Your task to perform on an android device: create a new album in the google photos Image 0: 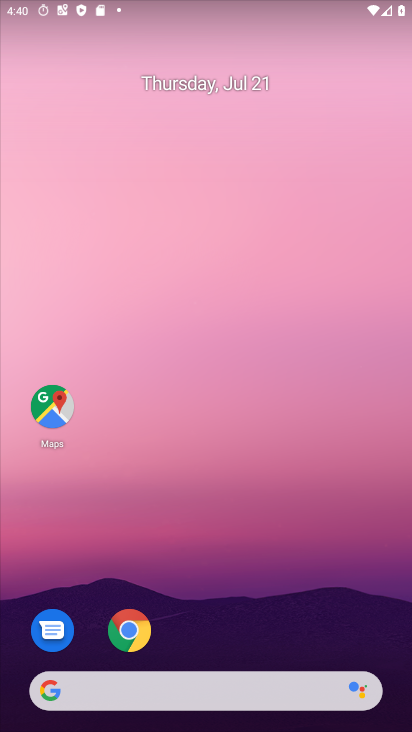
Step 0: drag from (261, 689) to (390, 87)
Your task to perform on an android device: create a new album in the google photos Image 1: 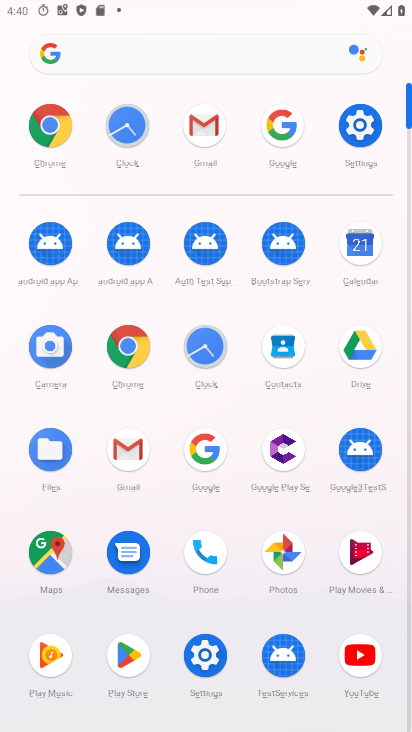
Step 1: click (285, 552)
Your task to perform on an android device: create a new album in the google photos Image 2: 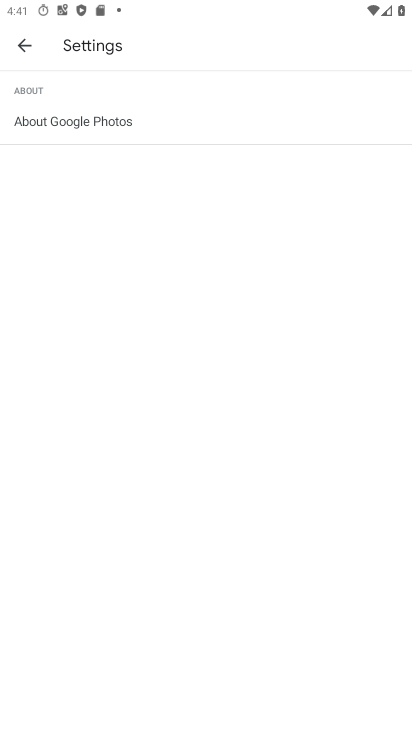
Step 2: press back button
Your task to perform on an android device: create a new album in the google photos Image 3: 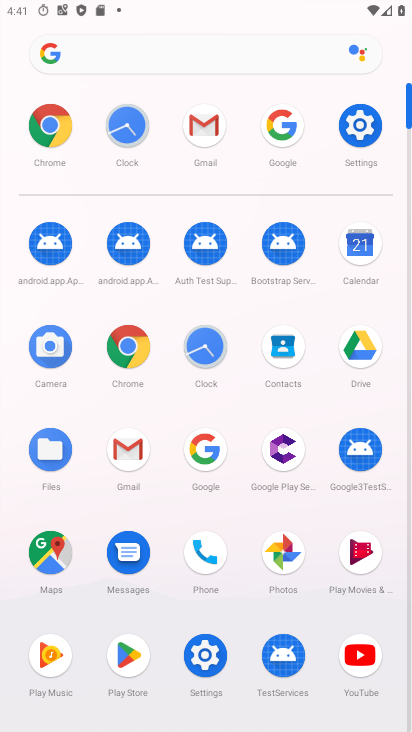
Step 3: click (284, 551)
Your task to perform on an android device: create a new album in the google photos Image 4: 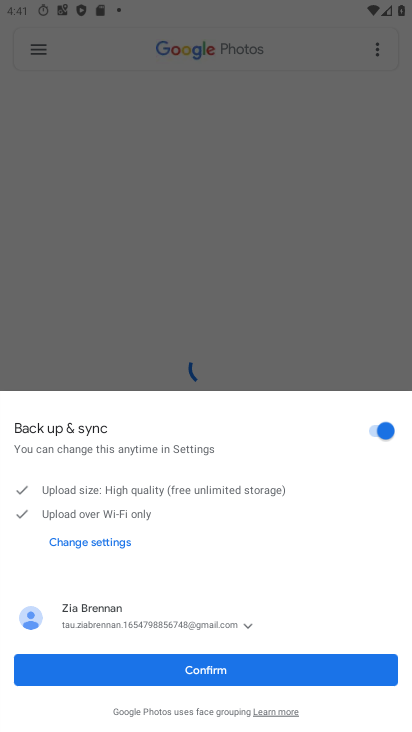
Step 4: click (229, 666)
Your task to perform on an android device: create a new album in the google photos Image 5: 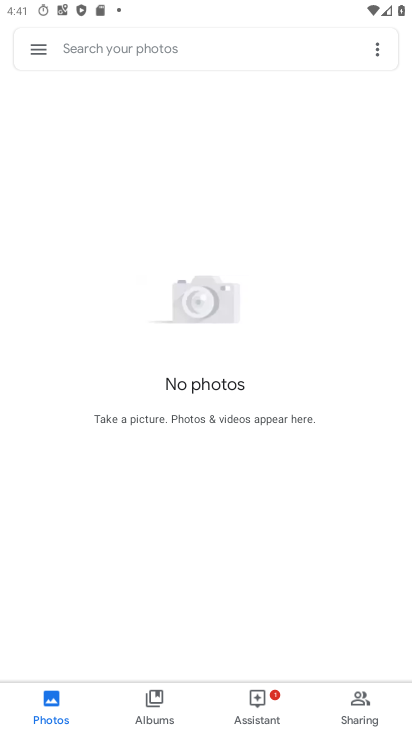
Step 5: click (378, 51)
Your task to perform on an android device: create a new album in the google photos Image 6: 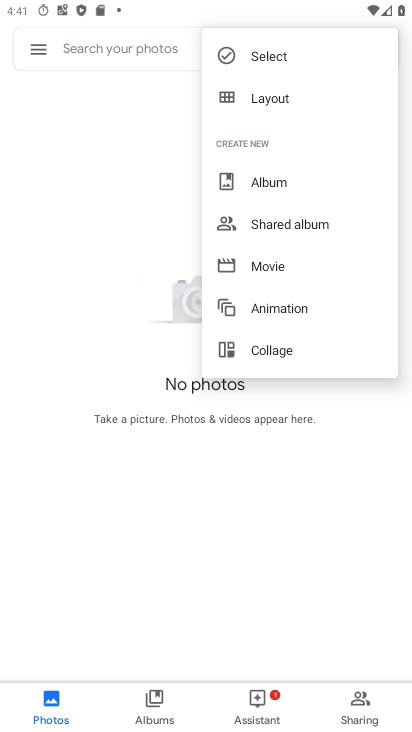
Step 6: click (271, 185)
Your task to perform on an android device: create a new album in the google photos Image 7: 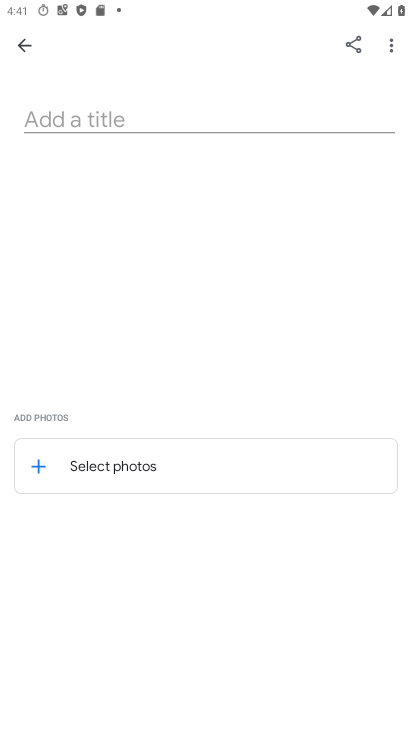
Step 7: click (276, 114)
Your task to perform on an android device: create a new album in the google photos Image 8: 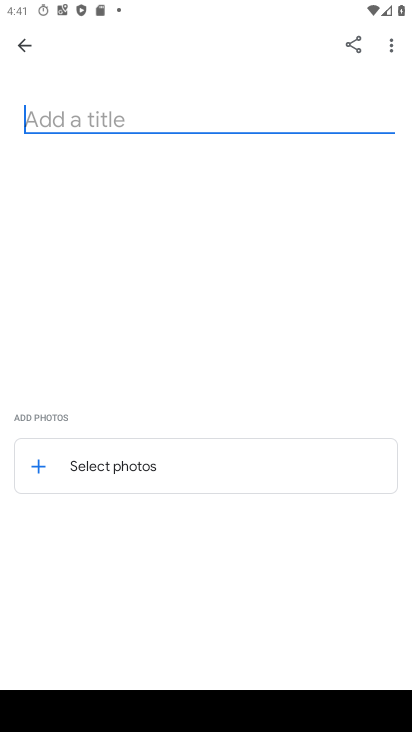
Step 8: type "Sonu"
Your task to perform on an android device: create a new album in the google photos Image 9: 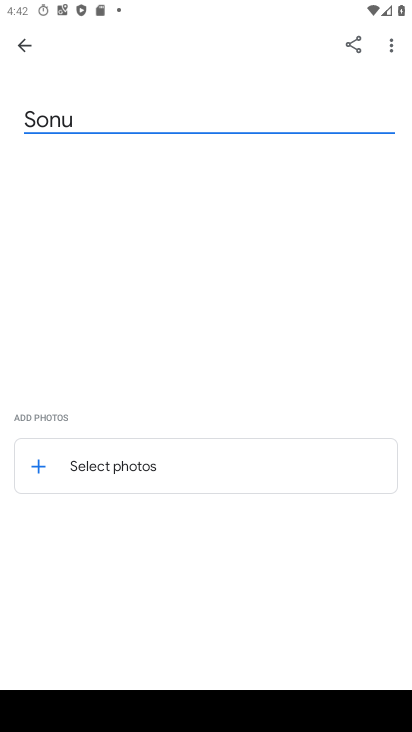
Step 9: click (40, 467)
Your task to perform on an android device: create a new album in the google photos Image 10: 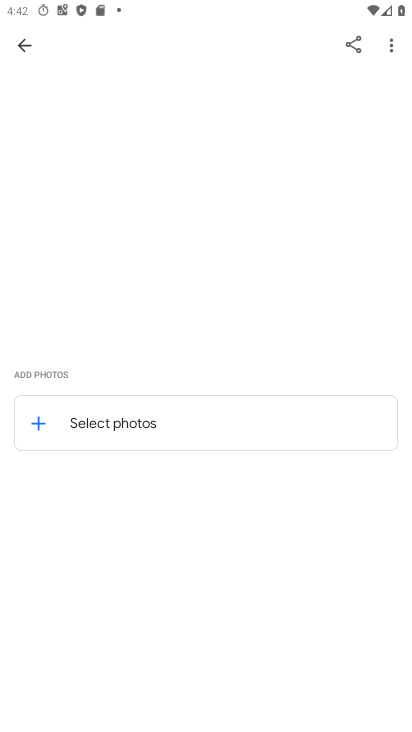
Step 10: click (32, 426)
Your task to perform on an android device: create a new album in the google photos Image 11: 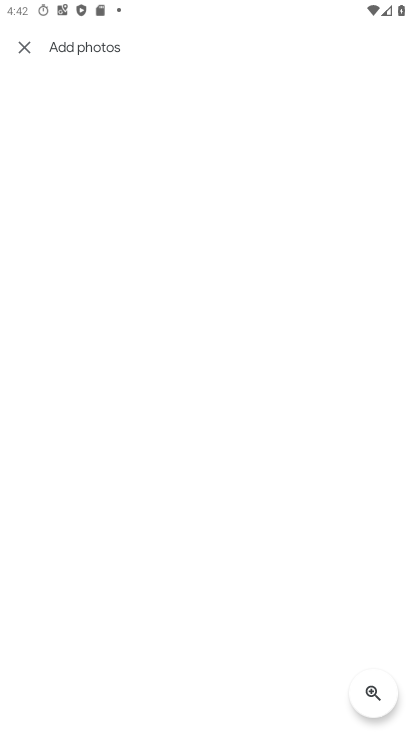
Step 11: task complete